Your task to perform on an android device: View the shopping cart on newegg. Search for razer naga on newegg, select the first entry, add it to the cart, then select checkout. Image 0: 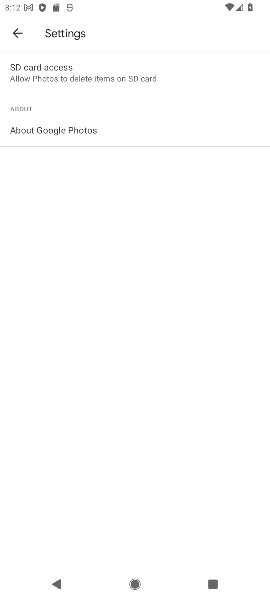
Step 0: press home button
Your task to perform on an android device: View the shopping cart on newegg. Search for razer naga on newegg, select the first entry, add it to the cart, then select checkout. Image 1: 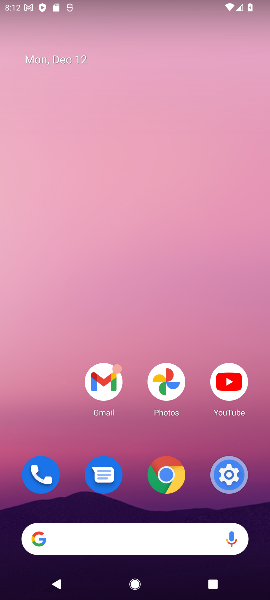
Step 1: click (168, 475)
Your task to perform on an android device: View the shopping cart on newegg. Search for razer naga on newegg, select the first entry, add it to the cart, then select checkout. Image 2: 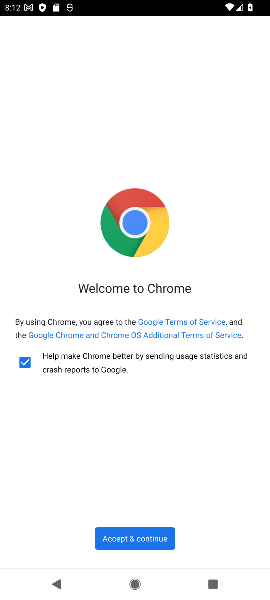
Step 2: click (115, 534)
Your task to perform on an android device: View the shopping cart on newegg. Search for razer naga on newegg, select the first entry, add it to the cart, then select checkout. Image 3: 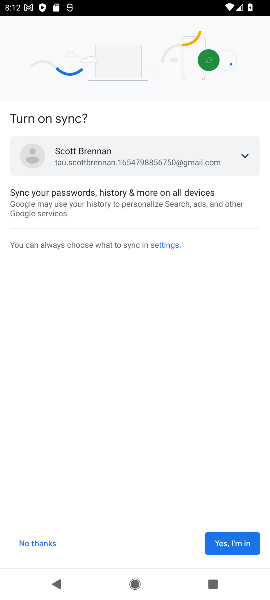
Step 3: click (238, 543)
Your task to perform on an android device: View the shopping cart on newegg. Search for razer naga on newegg, select the first entry, add it to the cart, then select checkout. Image 4: 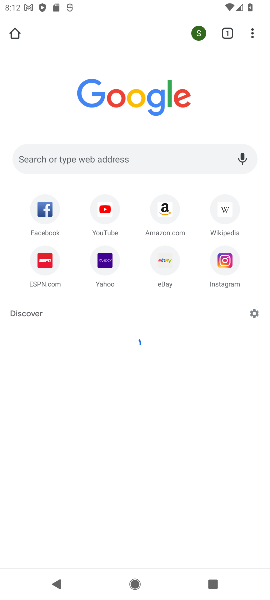
Step 4: click (127, 155)
Your task to perform on an android device: View the shopping cart on newegg. Search for razer naga on newegg, select the first entry, add it to the cart, then select checkout. Image 5: 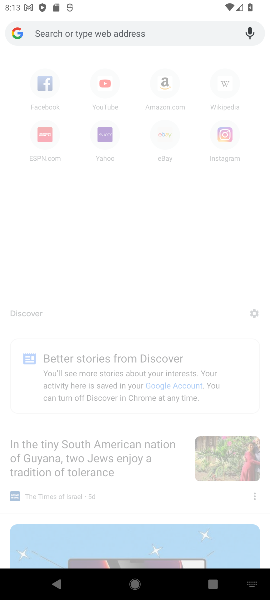
Step 5: type "newegg"
Your task to perform on an android device: View the shopping cart on newegg. Search for razer naga on newegg, select the first entry, add it to the cart, then select checkout. Image 6: 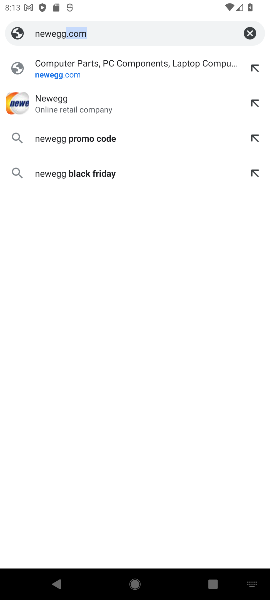
Step 6: click (55, 98)
Your task to perform on an android device: View the shopping cart on newegg. Search for razer naga on newegg, select the first entry, add it to the cart, then select checkout. Image 7: 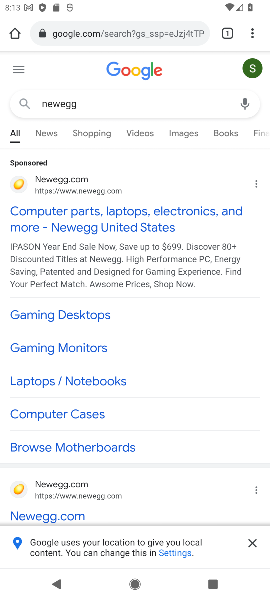
Step 7: click (57, 499)
Your task to perform on an android device: View the shopping cart on newegg. Search for razer naga on newegg, select the first entry, add it to the cart, then select checkout. Image 8: 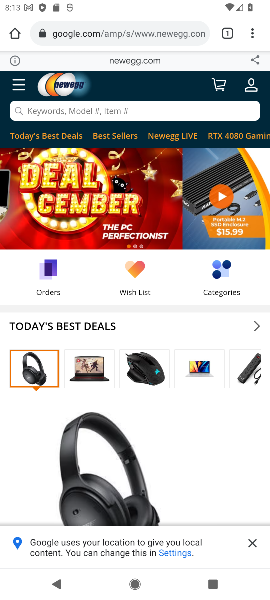
Step 8: click (221, 84)
Your task to perform on an android device: View the shopping cart on newegg. Search for razer naga on newegg, select the first entry, add it to the cart, then select checkout. Image 9: 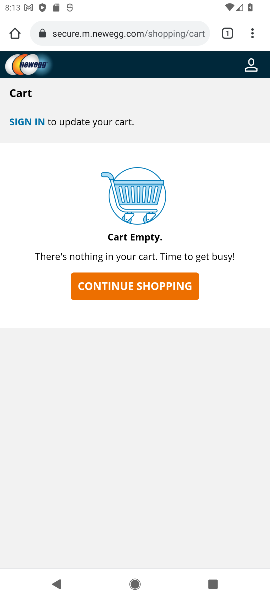
Step 9: click (122, 285)
Your task to perform on an android device: View the shopping cart on newegg. Search for razer naga on newegg, select the first entry, add it to the cart, then select checkout. Image 10: 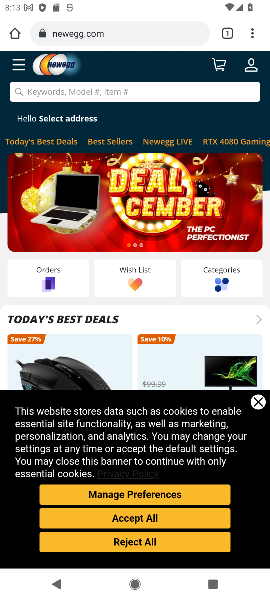
Step 10: click (155, 92)
Your task to perform on an android device: View the shopping cart on newegg. Search for razer naga on newegg, select the first entry, add it to the cart, then select checkout. Image 11: 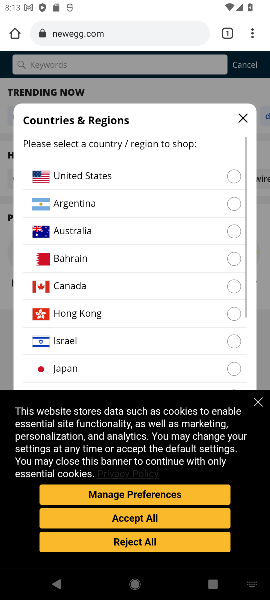
Step 11: type "razer naga"
Your task to perform on an android device: View the shopping cart on newegg. Search for razer naga on newegg, select the first entry, add it to the cart, then select checkout. Image 12: 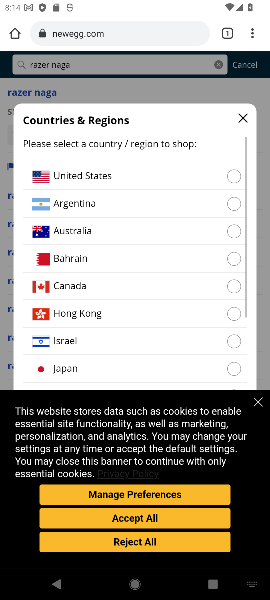
Step 12: click (245, 118)
Your task to perform on an android device: View the shopping cart on newegg. Search for razer naga on newegg, select the first entry, add it to the cart, then select checkout. Image 13: 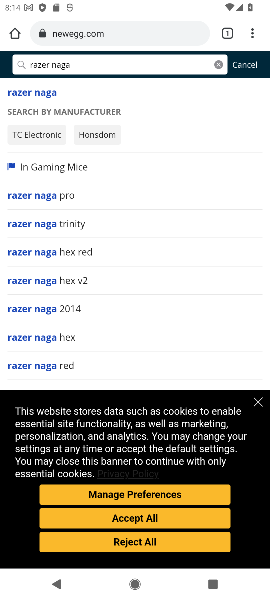
Step 13: click (45, 96)
Your task to perform on an android device: View the shopping cart on newegg. Search for razer naga on newegg, select the first entry, add it to the cart, then select checkout. Image 14: 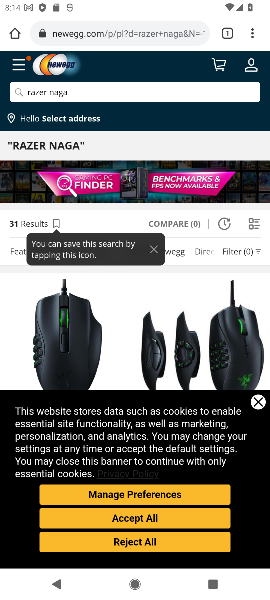
Step 14: click (259, 403)
Your task to perform on an android device: View the shopping cart on newegg. Search for razer naga on newegg, select the first entry, add it to the cart, then select checkout. Image 15: 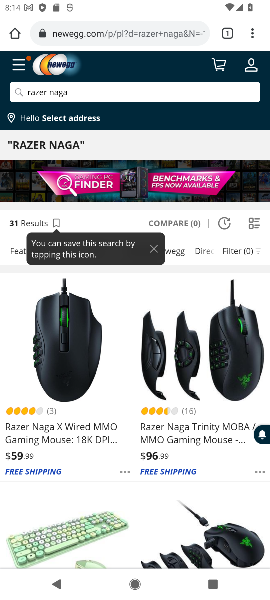
Step 15: click (33, 422)
Your task to perform on an android device: View the shopping cart on newegg. Search for razer naga on newegg, select the first entry, add it to the cart, then select checkout. Image 16: 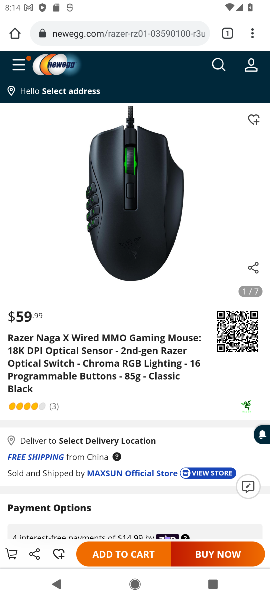
Step 16: click (116, 550)
Your task to perform on an android device: View the shopping cart on newegg. Search for razer naga on newegg, select the first entry, add it to the cart, then select checkout. Image 17: 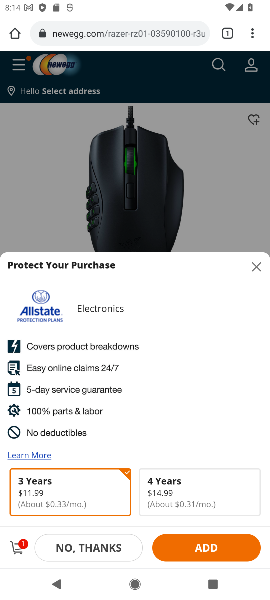
Step 17: click (17, 545)
Your task to perform on an android device: View the shopping cart on newegg. Search for razer naga on newegg, select the first entry, add it to the cart, then select checkout. Image 18: 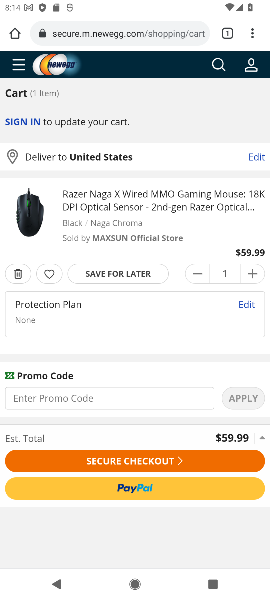
Step 18: click (112, 464)
Your task to perform on an android device: View the shopping cart on newegg. Search for razer naga on newegg, select the first entry, add it to the cart, then select checkout. Image 19: 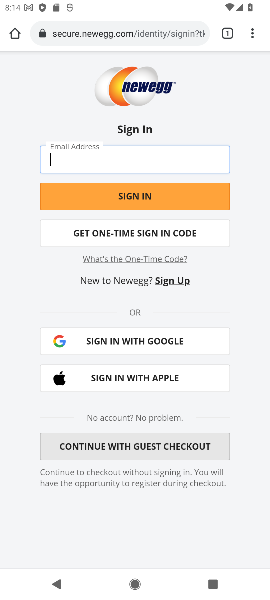
Step 19: task complete